Your task to perform on an android device: Search for vegetarian restaurants on Maps Image 0: 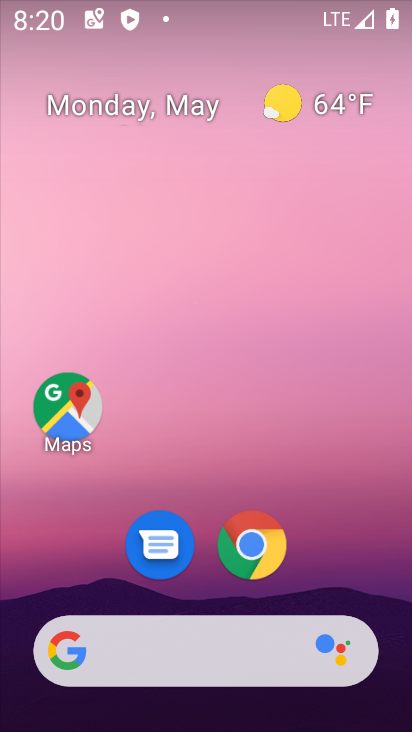
Step 0: click (59, 404)
Your task to perform on an android device: Search for vegetarian restaurants on Maps Image 1: 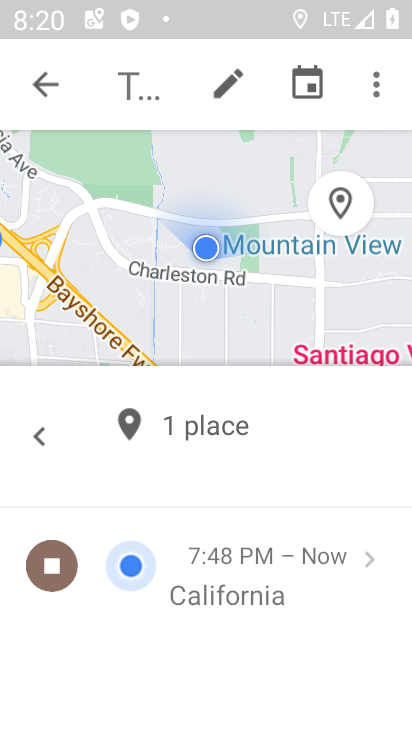
Step 1: click (42, 76)
Your task to perform on an android device: Search for vegetarian restaurants on Maps Image 2: 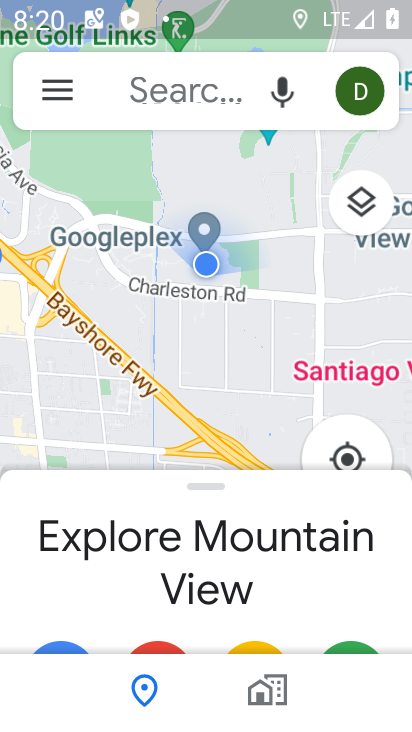
Step 2: click (192, 99)
Your task to perform on an android device: Search for vegetarian restaurants on Maps Image 3: 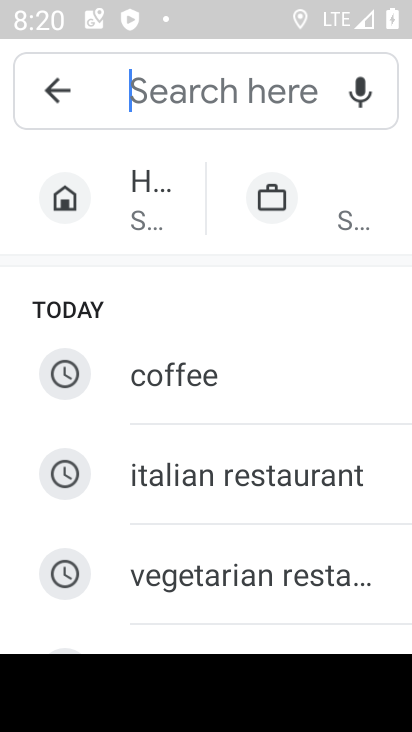
Step 3: click (256, 567)
Your task to perform on an android device: Search for vegetarian restaurants on Maps Image 4: 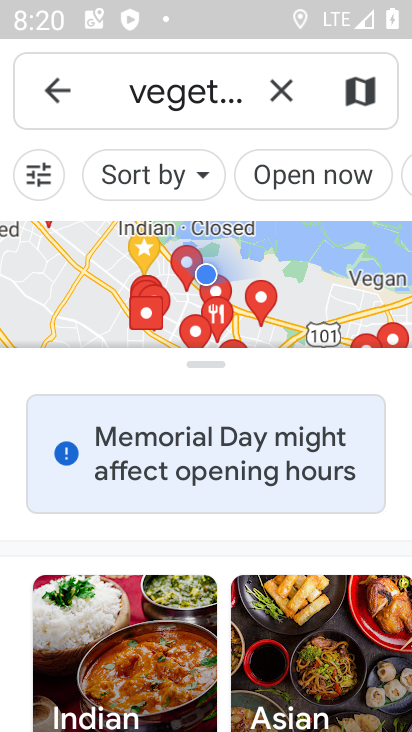
Step 4: task complete